Your task to perform on an android device: show emergency info Image 0: 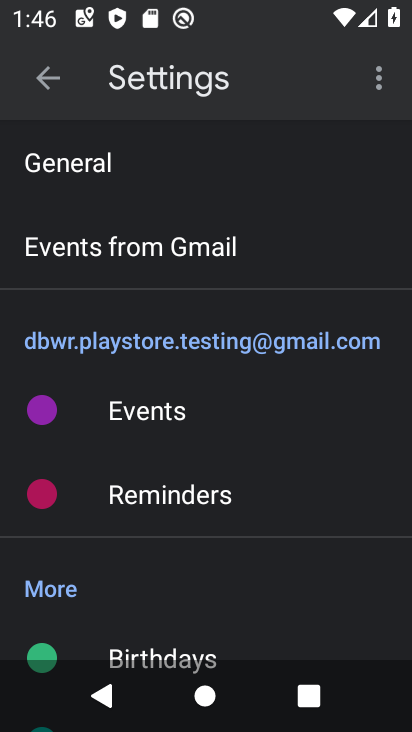
Step 0: press home button
Your task to perform on an android device: show emergency info Image 1: 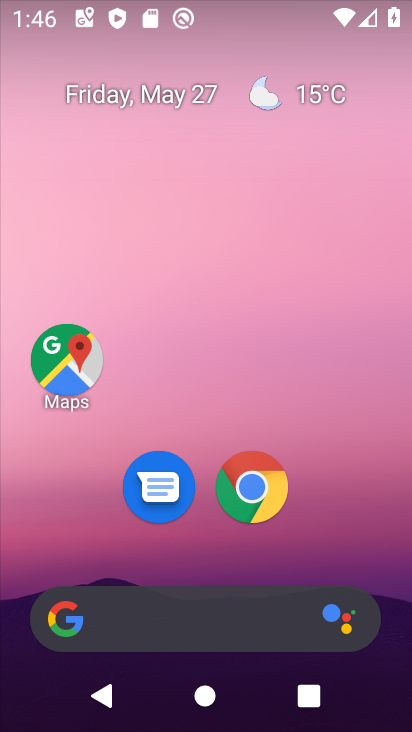
Step 1: drag from (185, 555) to (346, 21)
Your task to perform on an android device: show emergency info Image 2: 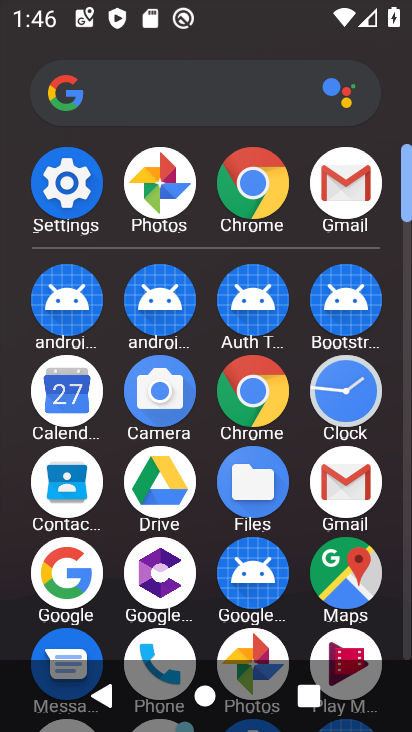
Step 2: click (63, 174)
Your task to perform on an android device: show emergency info Image 3: 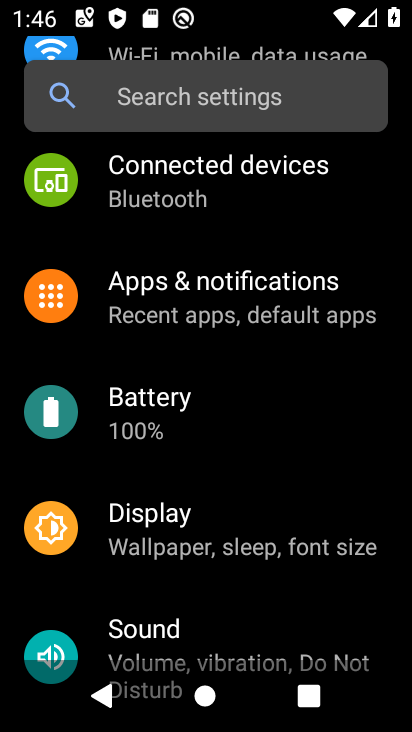
Step 3: drag from (154, 661) to (234, 252)
Your task to perform on an android device: show emergency info Image 4: 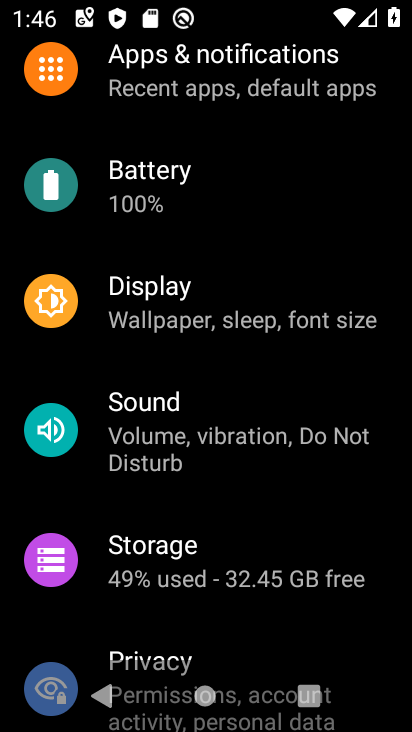
Step 4: drag from (144, 625) to (236, 117)
Your task to perform on an android device: show emergency info Image 5: 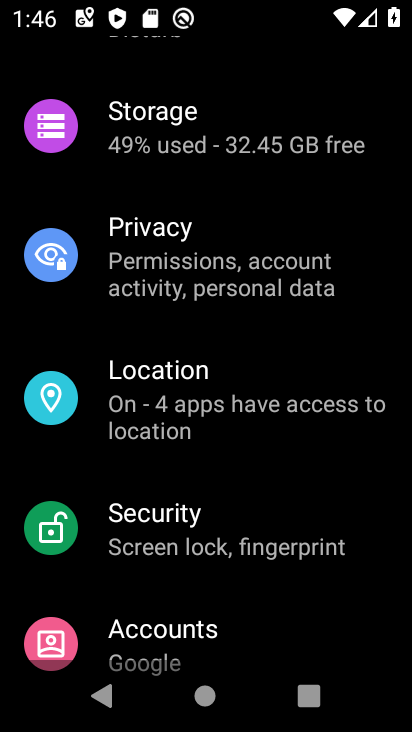
Step 5: drag from (82, 578) to (219, 153)
Your task to perform on an android device: show emergency info Image 6: 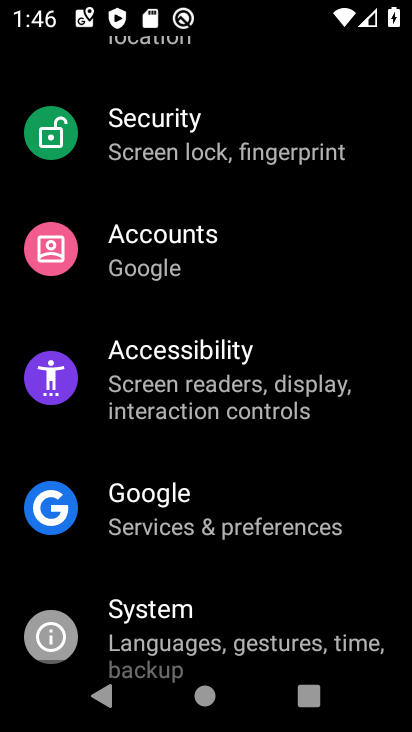
Step 6: drag from (167, 575) to (264, 78)
Your task to perform on an android device: show emergency info Image 7: 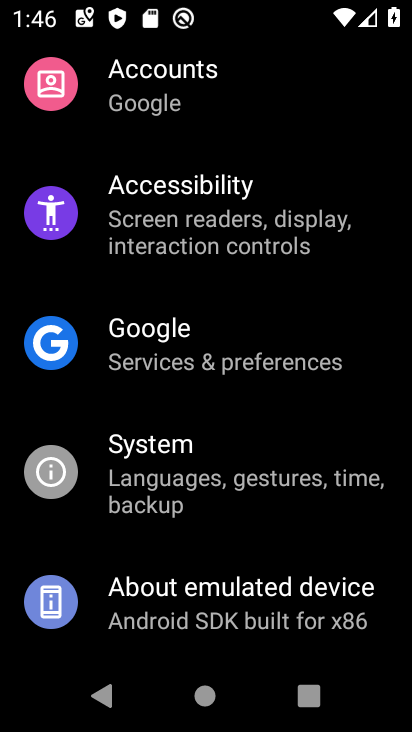
Step 7: click (142, 573)
Your task to perform on an android device: show emergency info Image 8: 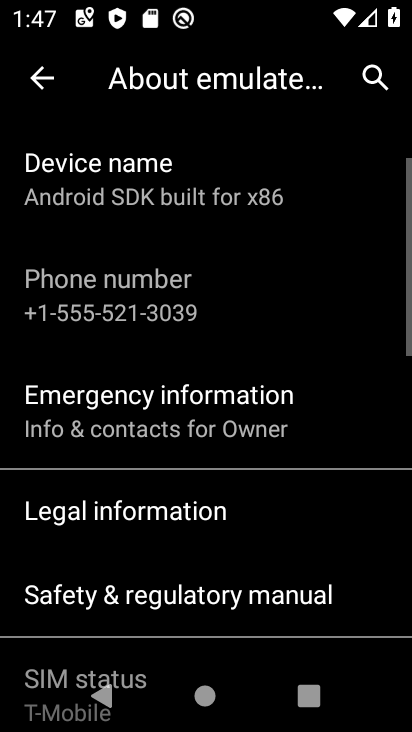
Step 8: click (228, 439)
Your task to perform on an android device: show emergency info Image 9: 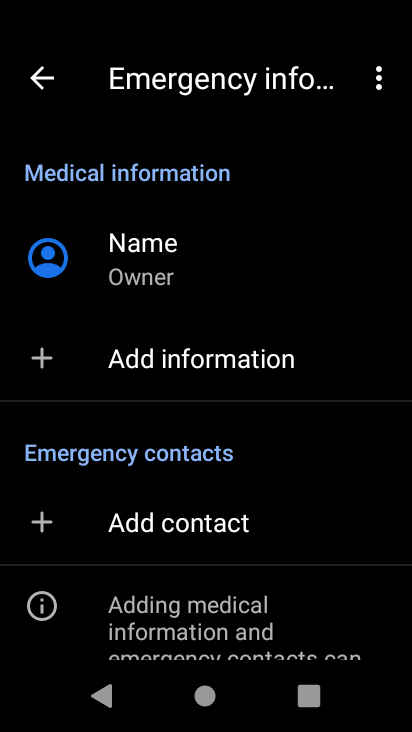
Step 9: task complete